Your task to perform on an android device: Open battery settings Image 0: 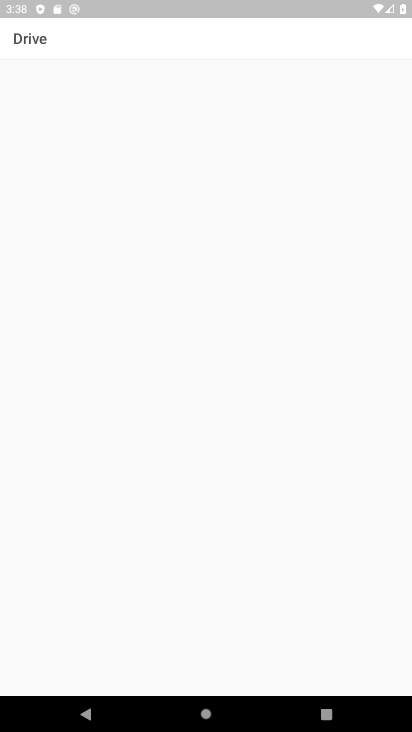
Step 0: click (313, 693)
Your task to perform on an android device: Open battery settings Image 1: 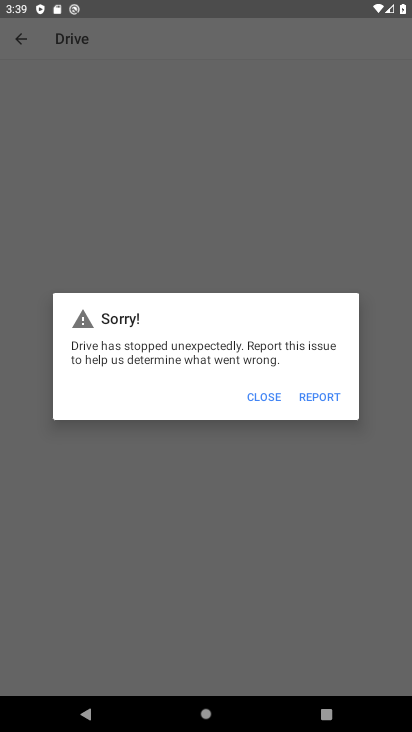
Step 1: press back button
Your task to perform on an android device: Open battery settings Image 2: 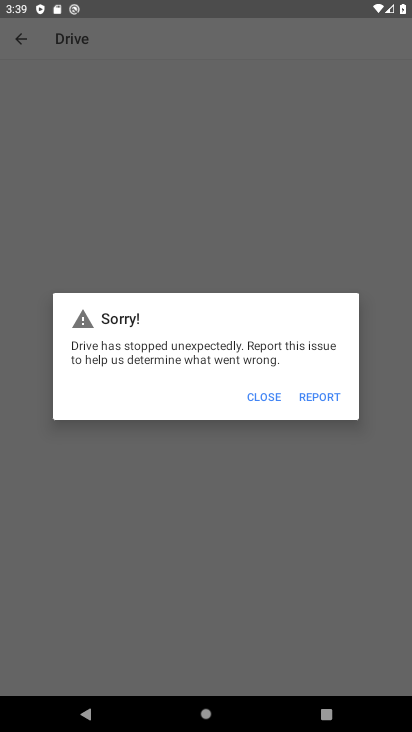
Step 2: press home button
Your task to perform on an android device: Open battery settings Image 3: 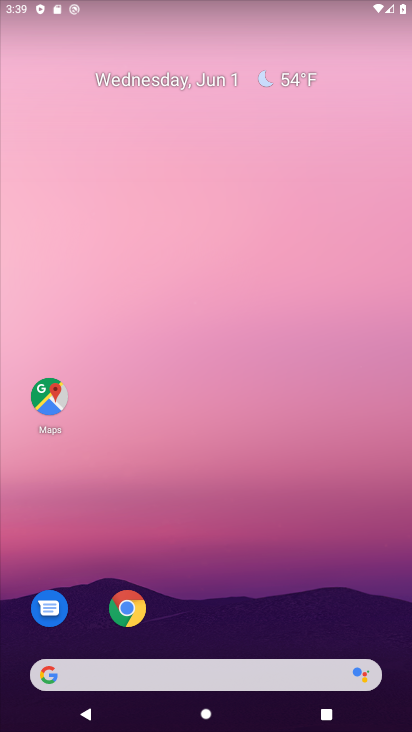
Step 3: drag from (140, 730) to (151, 14)
Your task to perform on an android device: Open battery settings Image 4: 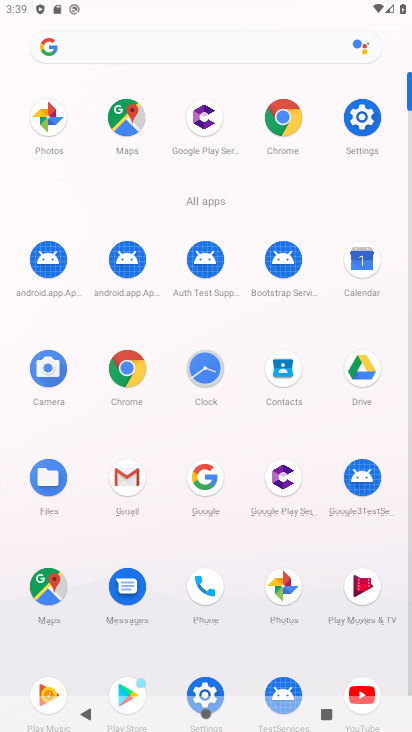
Step 4: click (353, 119)
Your task to perform on an android device: Open battery settings Image 5: 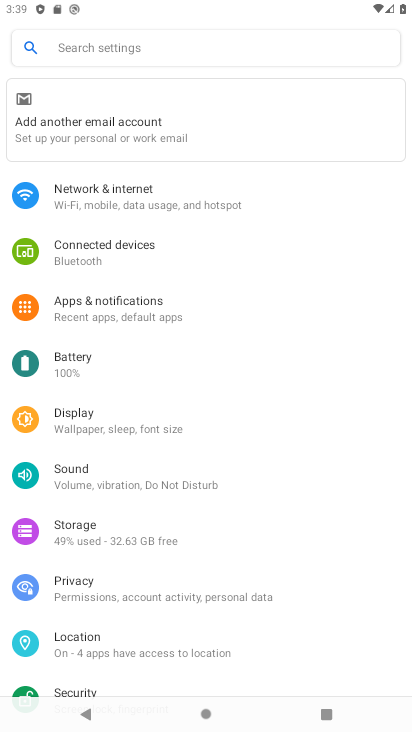
Step 5: click (119, 371)
Your task to perform on an android device: Open battery settings Image 6: 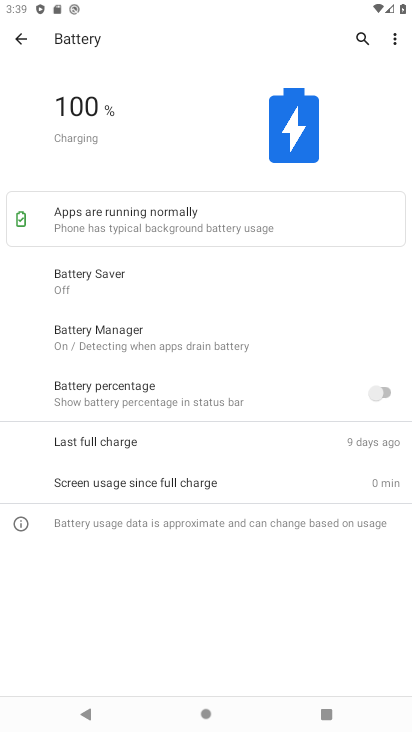
Step 6: click (391, 40)
Your task to perform on an android device: Open battery settings Image 7: 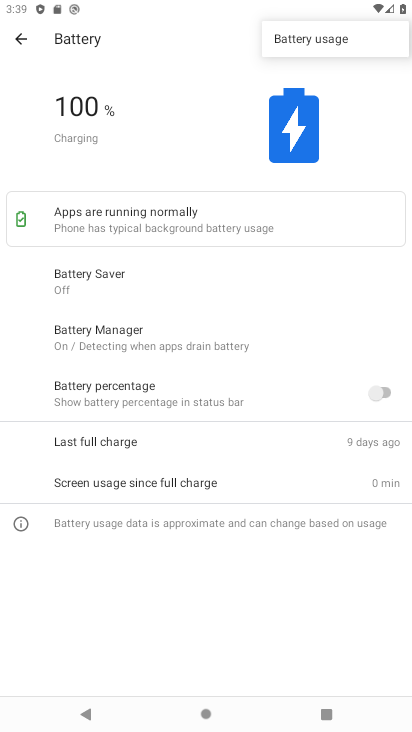
Step 7: click (281, 38)
Your task to perform on an android device: Open battery settings Image 8: 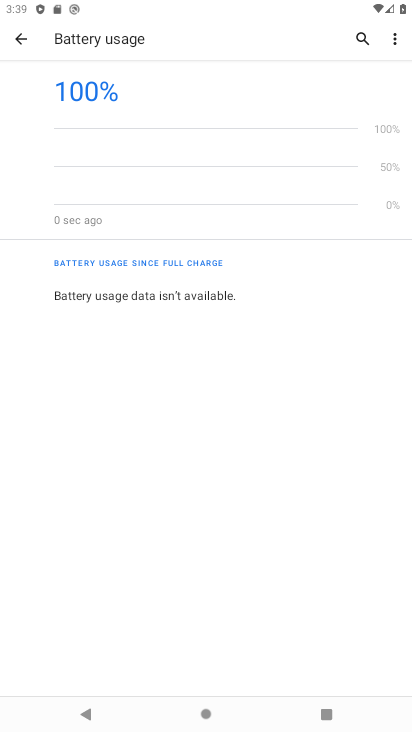
Step 8: task complete